Your task to perform on an android device: empty trash in the gmail app Image 0: 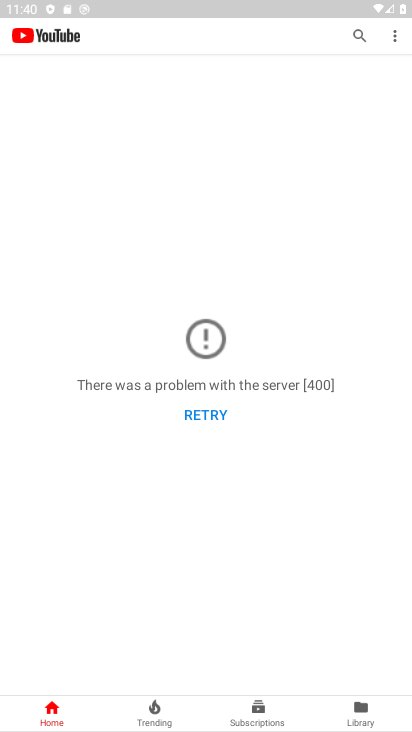
Step 0: press home button
Your task to perform on an android device: empty trash in the gmail app Image 1: 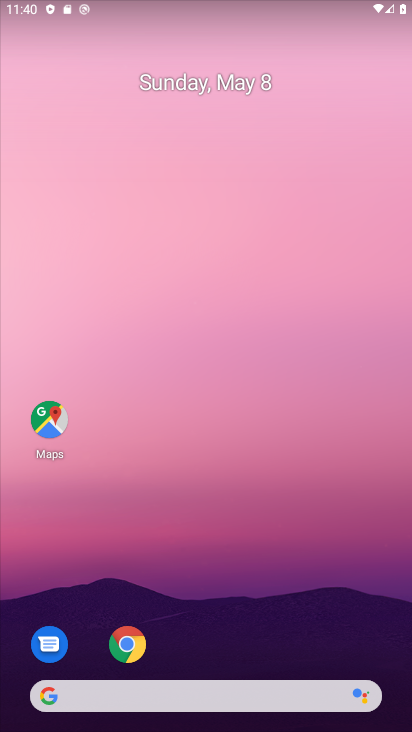
Step 1: drag from (249, 514) to (376, 46)
Your task to perform on an android device: empty trash in the gmail app Image 2: 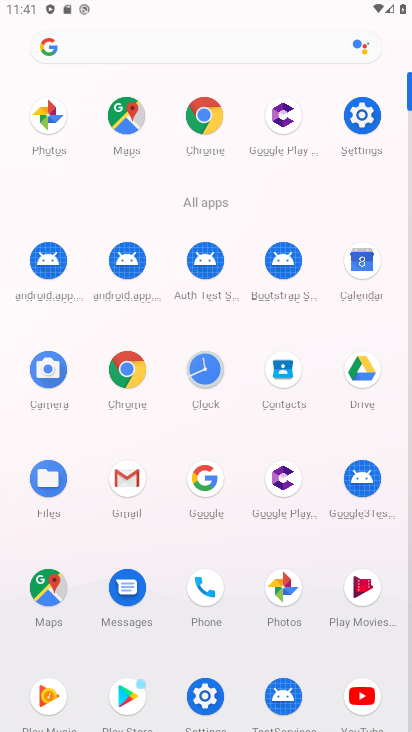
Step 2: click (120, 479)
Your task to perform on an android device: empty trash in the gmail app Image 3: 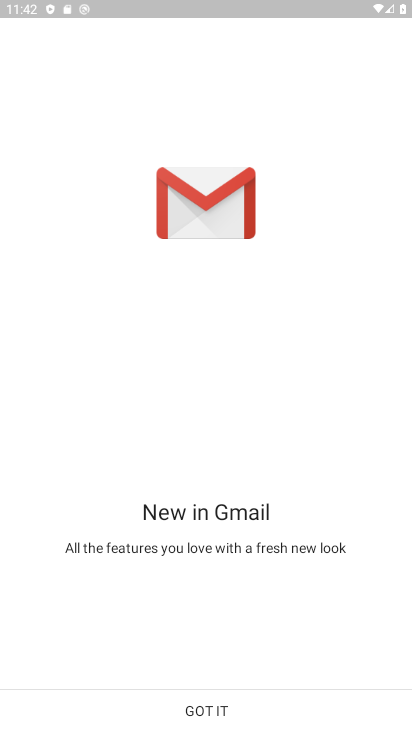
Step 3: click (267, 713)
Your task to perform on an android device: empty trash in the gmail app Image 4: 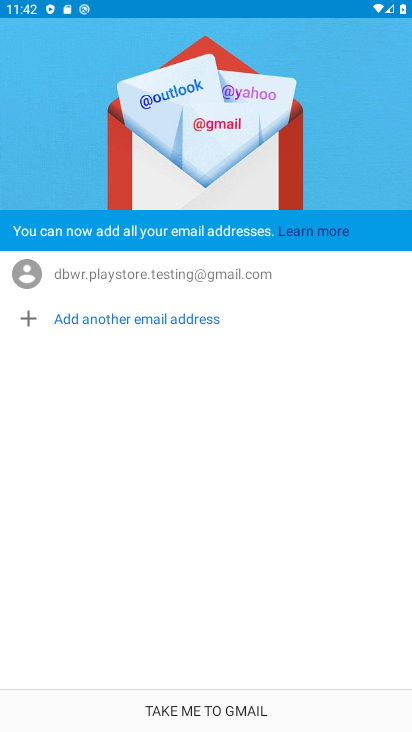
Step 4: click (240, 709)
Your task to perform on an android device: empty trash in the gmail app Image 5: 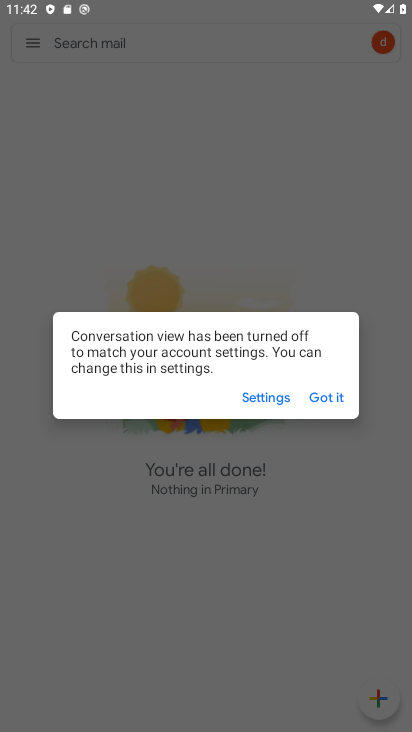
Step 5: click (329, 391)
Your task to perform on an android device: empty trash in the gmail app Image 6: 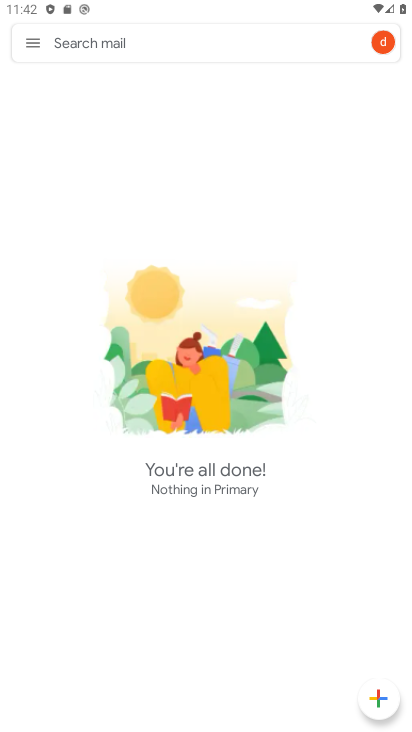
Step 6: click (29, 36)
Your task to perform on an android device: empty trash in the gmail app Image 7: 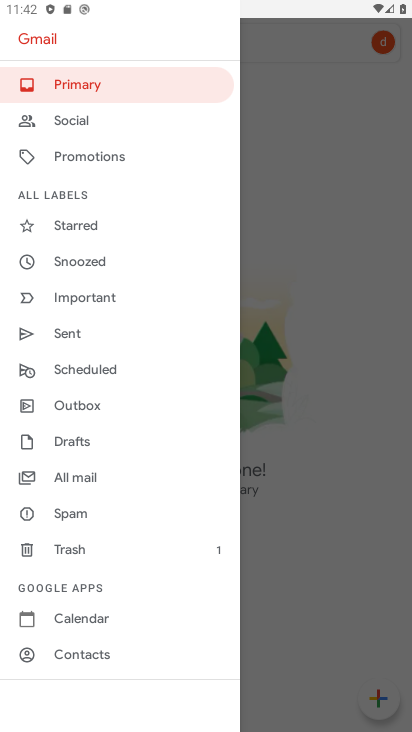
Step 7: click (69, 554)
Your task to perform on an android device: empty trash in the gmail app Image 8: 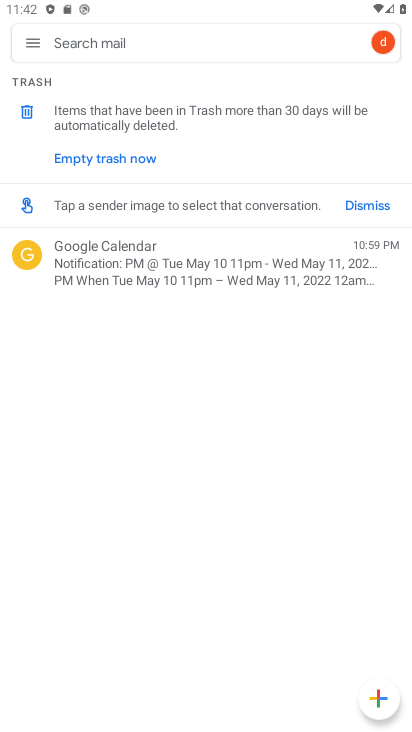
Step 8: click (132, 156)
Your task to perform on an android device: empty trash in the gmail app Image 9: 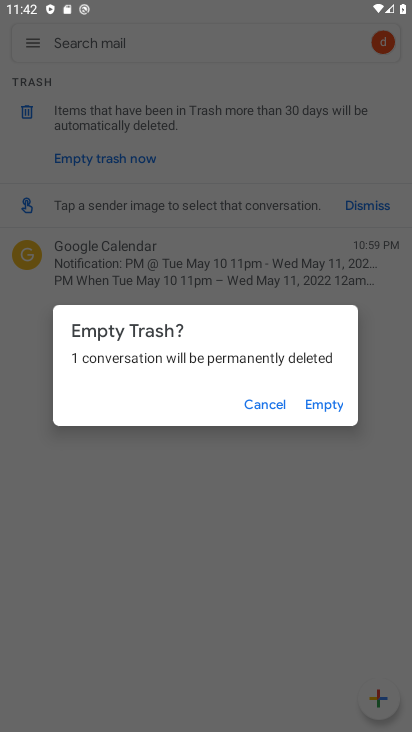
Step 9: click (332, 402)
Your task to perform on an android device: empty trash in the gmail app Image 10: 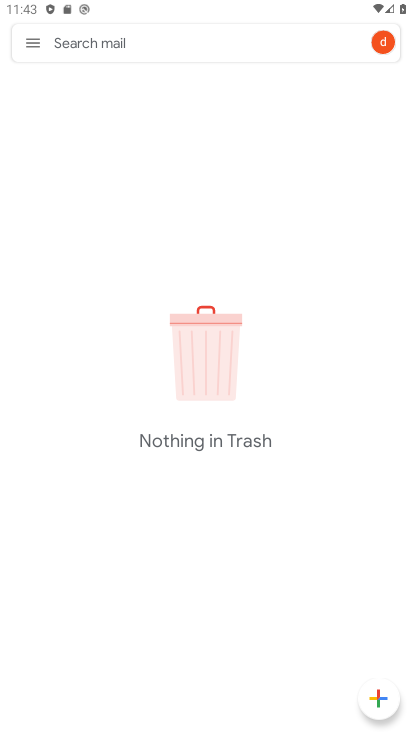
Step 10: task complete